Your task to perform on an android device: Go to sound settings Image 0: 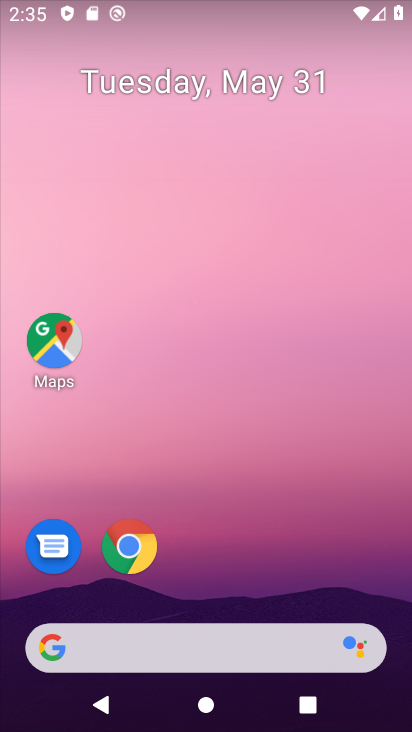
Step 0: drag from (218, 427) to (234, 34)
Your task to perform on an android device: Go to sound settings Image 1: 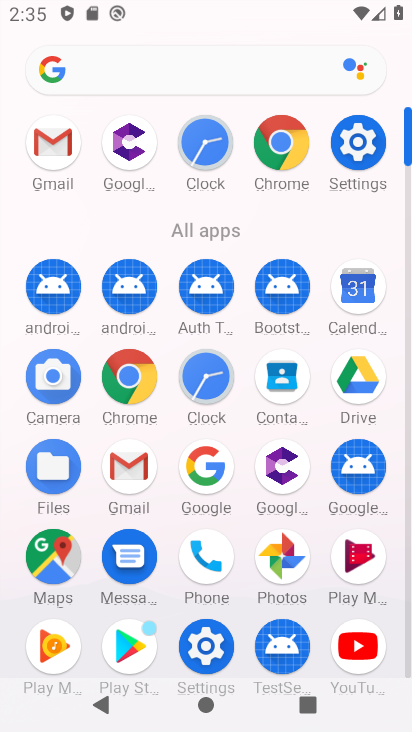
Step 1: click (361, 141)
Your task to perform on an android device: Go to sound settings Image 2: 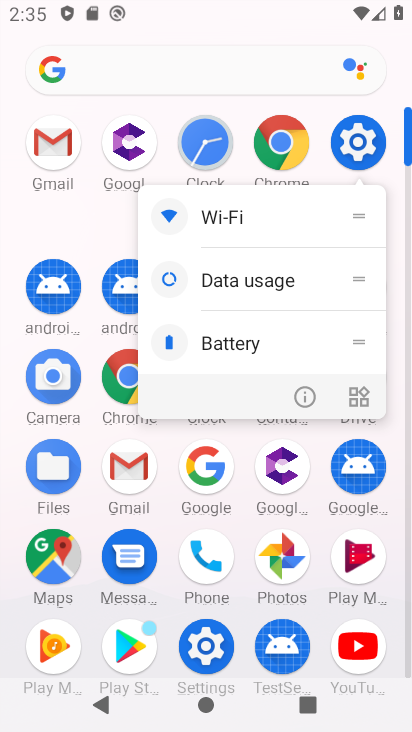
Step 2: click (364, 133)
Your task to perform on an android device: Go to sound settings Image 3: 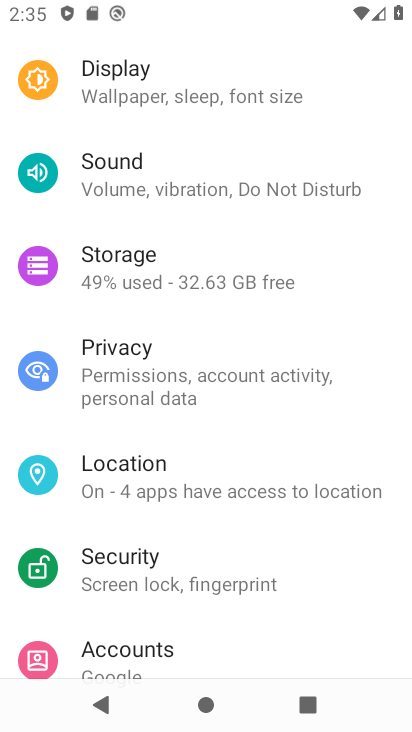
Step 3: click (234, 189)
Your task to perform on an android device: Go to sound settings Image 4: 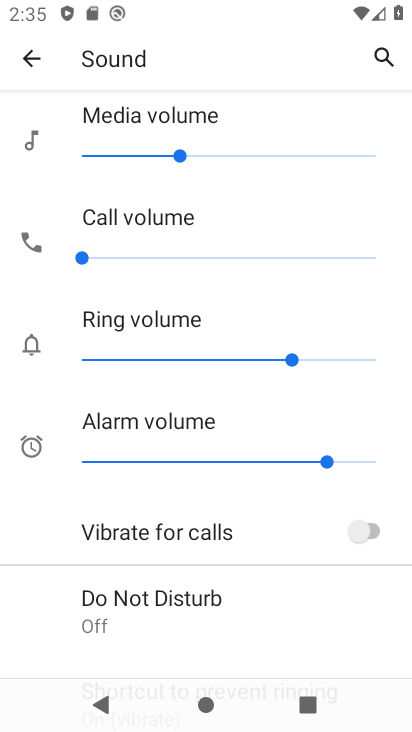
Step 4: task complete